Your task to perform on an android device: Do I have any events this weekend? Image 0: 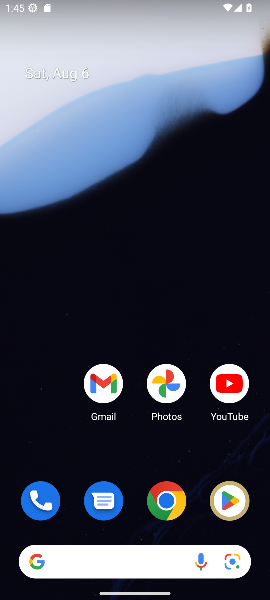
Step 0: press home button
Your task to perform on an android device: Do I have any events this weekend? Image 1: 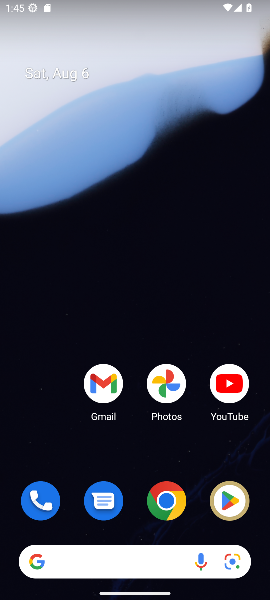
Step 1: drag from (147, 521) to (172, 161)
Your task to perform on an android device: Do I have any events this weekend? Image 2: 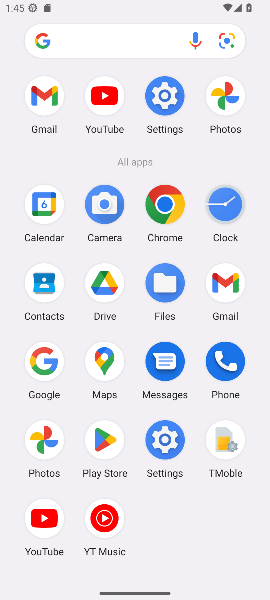
Step 2: click (40, 212)
Your task to perform on an android device: Do I have any events this weekend? Image 3: 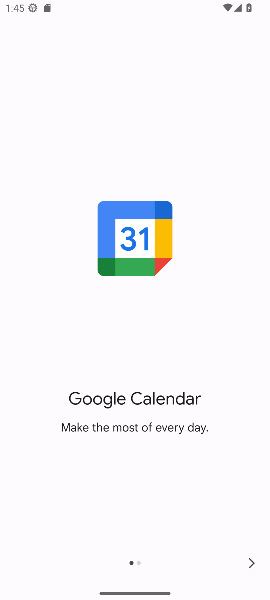
Step 3: click (250, 561)
Your task to perform on an android device: Do I have any events this weekend? Image 4: 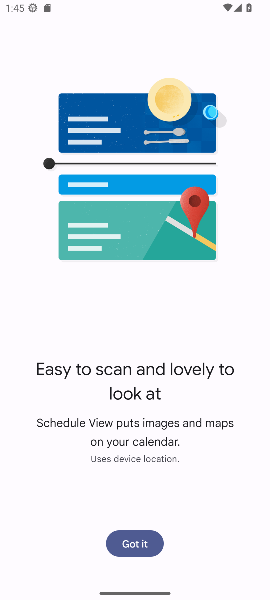
Step 4: click (250, 561)
Your task to perform on an android device: Do I have any events this weekend? Image 5: 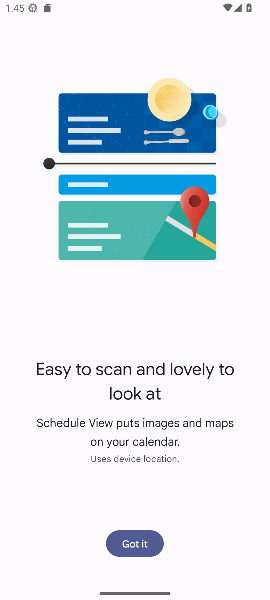
Step 5: click (134, 542)
Your task to perform on an android device: Do I have any events this weekend? Image 6: 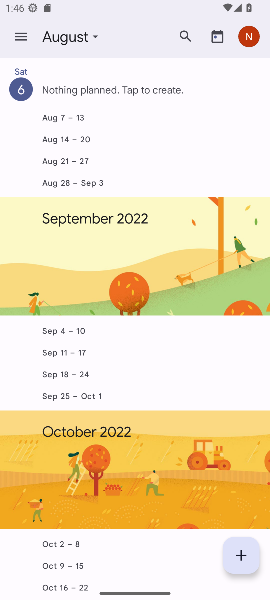
Step 6: click (15, 30)
Your task to perform on an android device: Do I have any events this weekend? Image 7: 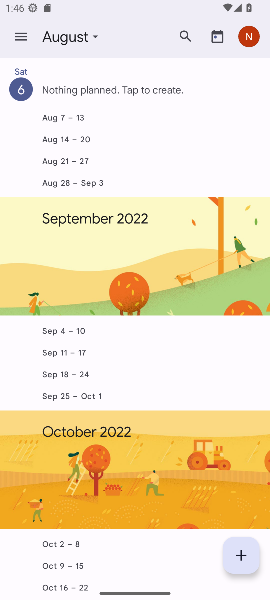
Step 7: click (22, 41)
Your task to perform on an android device: Do I have any events this weekend? Image 8: 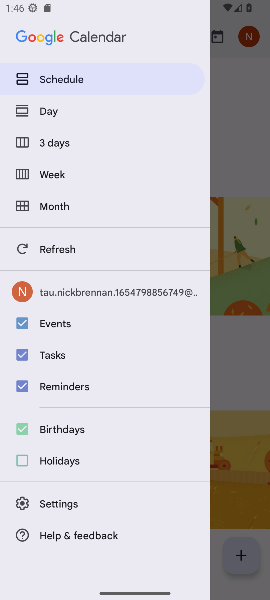
Step 8: click (64, 80)
Your task to perform on an android device: Do I have any events this weekend? Image 9: 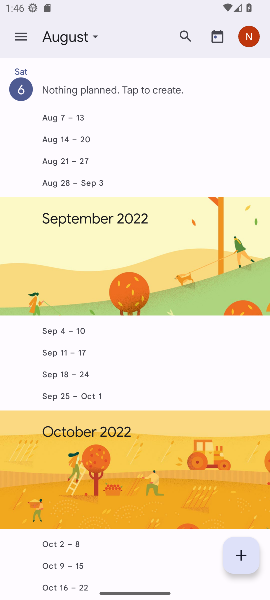
Step 9: task complete